Your task to perform on an android device: Search for Mexican restaurants on Maps Image 0: 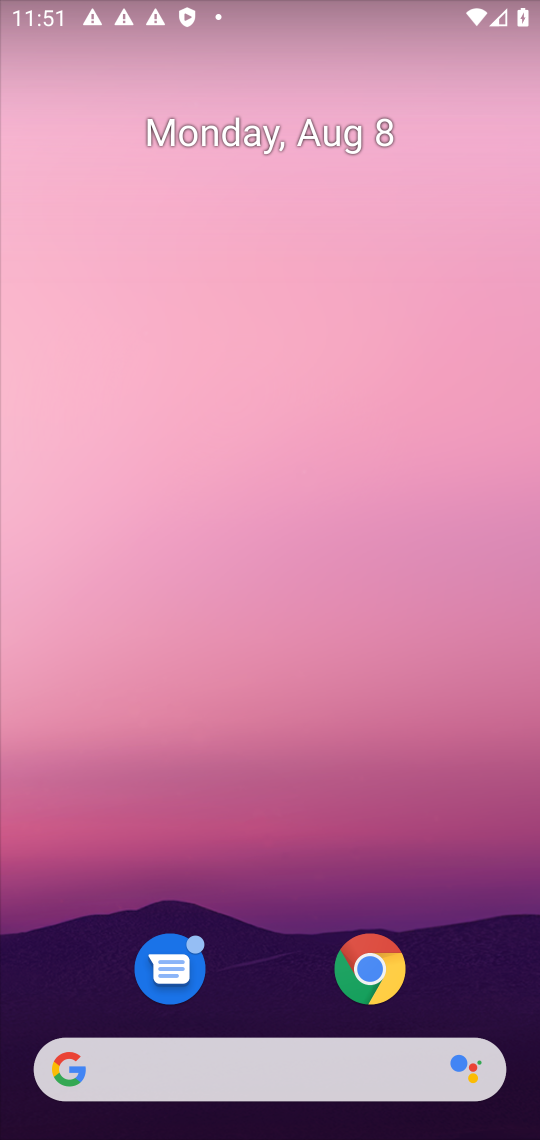
Step 0: press back button
Your task to perform on an android device: Search for Mexican restaurants on Maps Image 1: 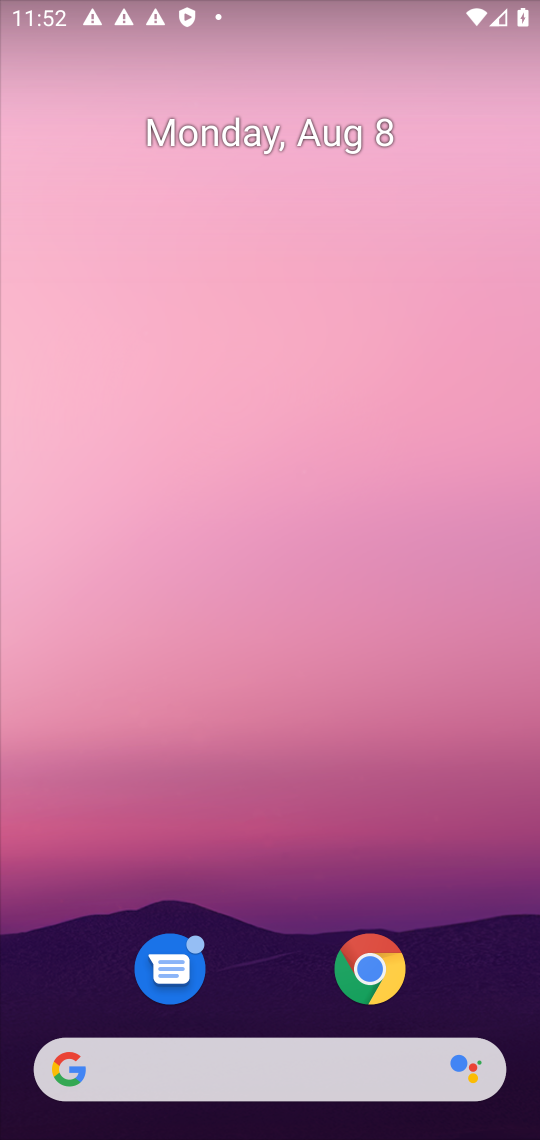
Step 1: drag from (247, 999) to (187, 171)
Your task to perform on an android device: Search for Mexican restaurants on Maps Image 2: 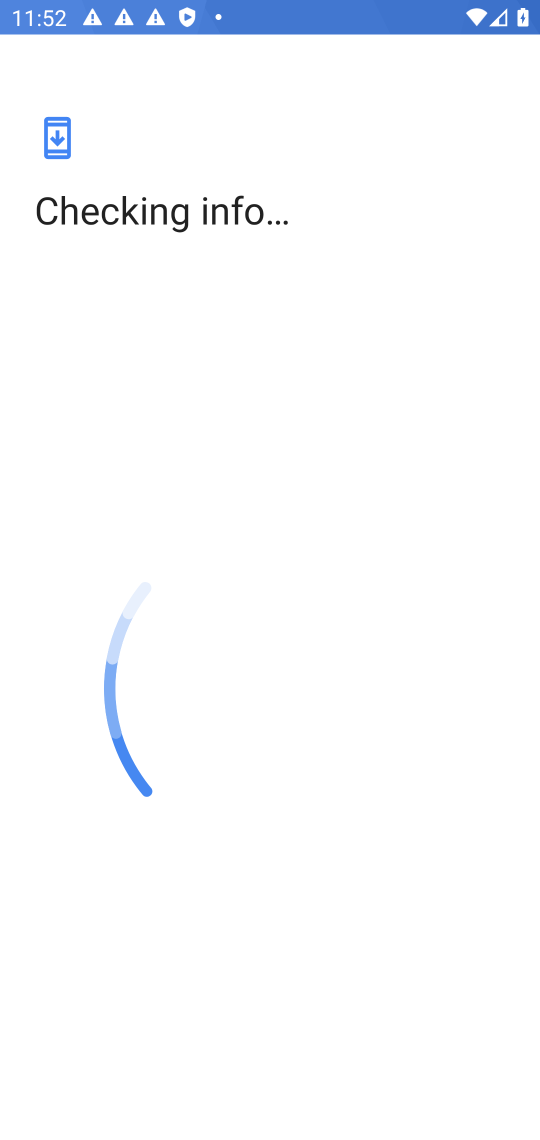
Step 2: press home button
Your task to perform on an android device: Search for Mexican restaurants on Maps Image 3: 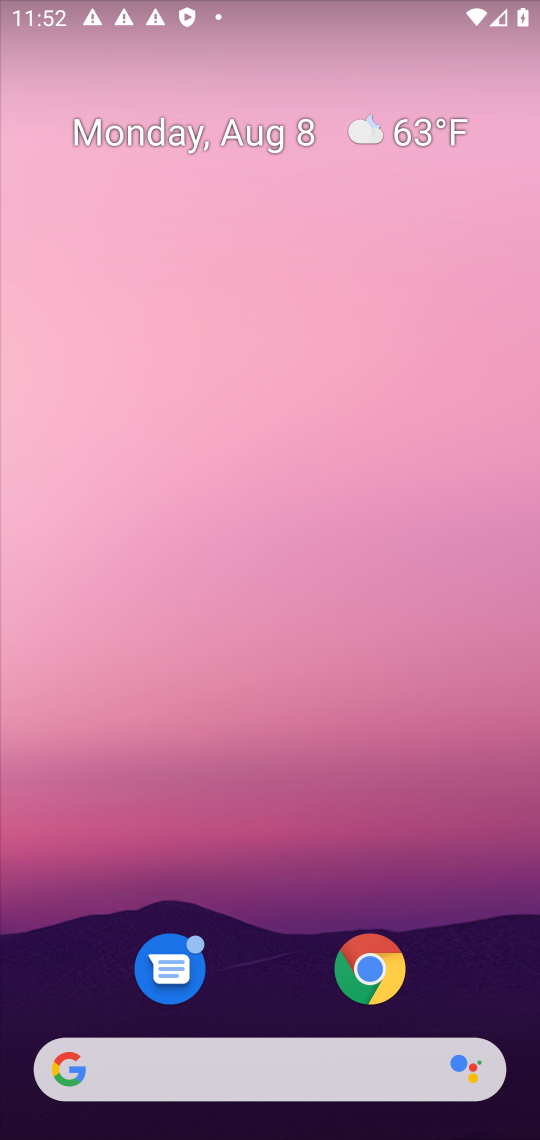
Step 3: drag from (315, 1020) to (215, 366)
Your task to perform on an android device: Search for Mexican restaurants on Maps Image 4: 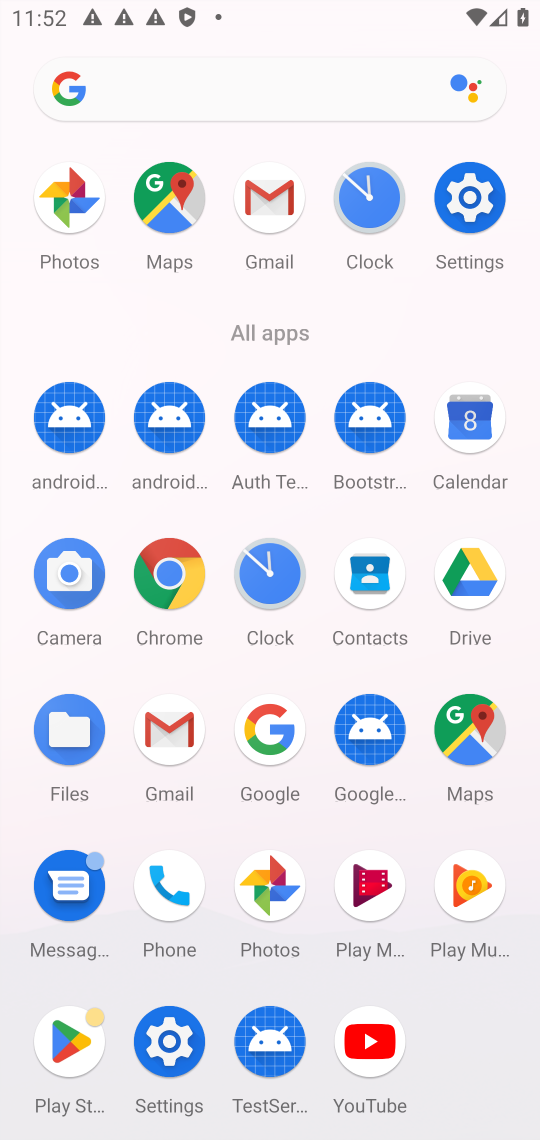
Step 4: click (472, 767)
Your task to perform on an android device: Search for Mexican restaurants on Maps Image 5: 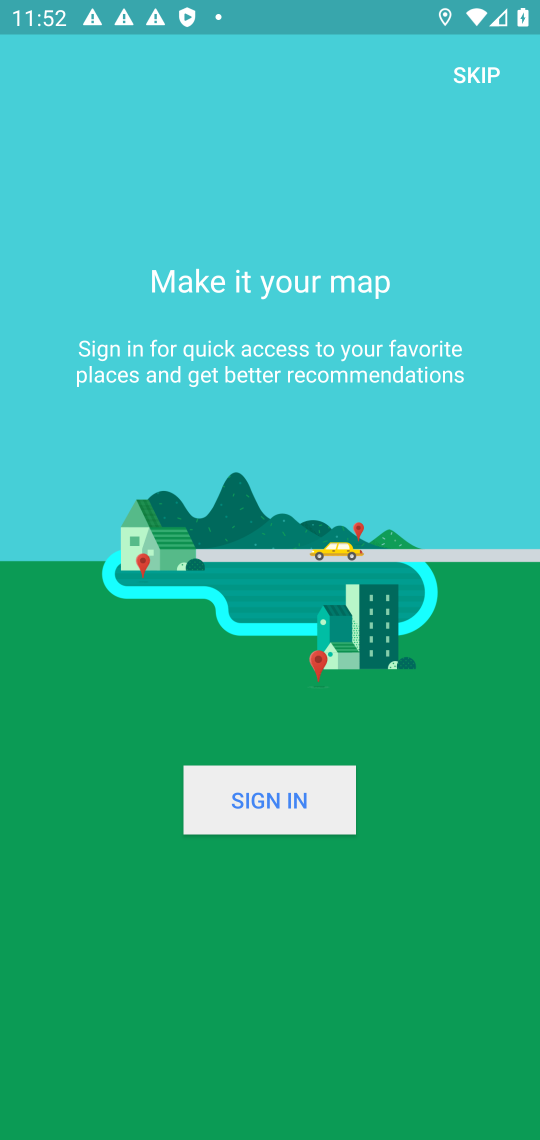
Step 5: click (479, 75)
Your task to perform on an android device: Search for Mexican restaurants on Maps Image 6: 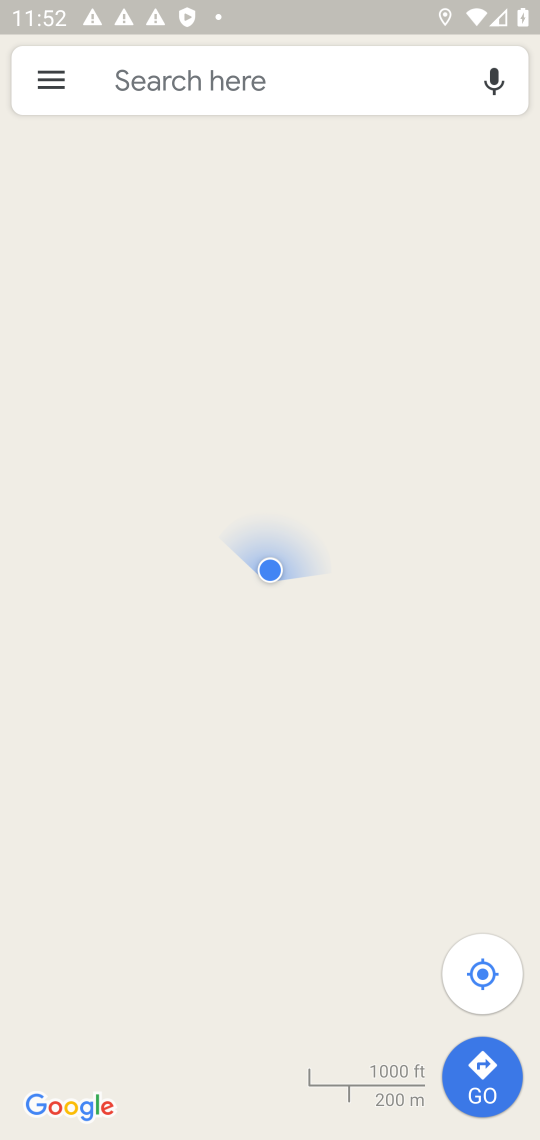
Step 6: click (353, 70)
Your task to perform on an android device: Search for Mexican restaurants on Maps Image 7: 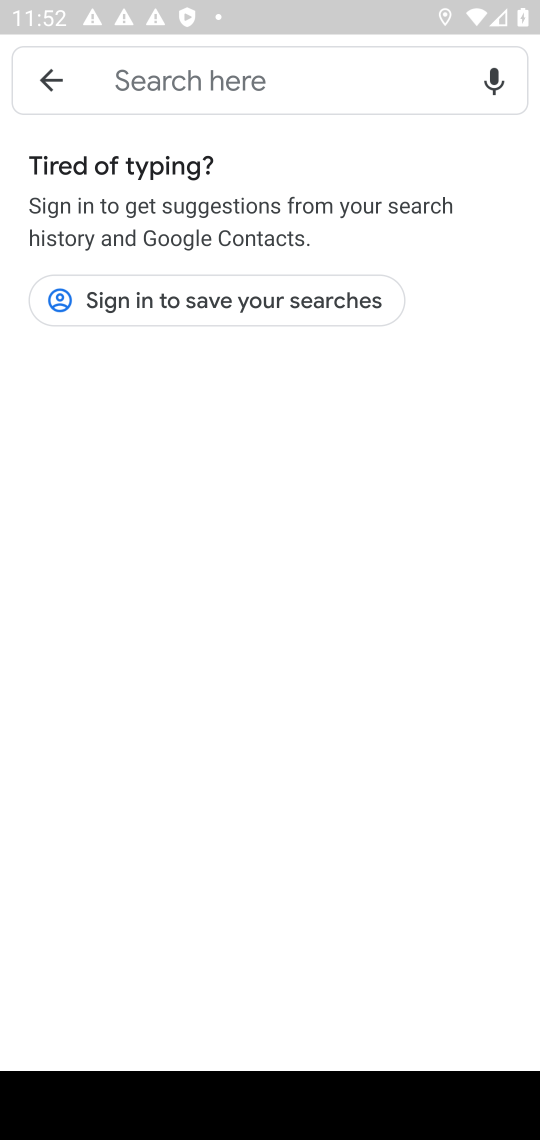
Step 7: task complete